Your task to perform on an android device: add a label to a message in the gmail app Image 0: 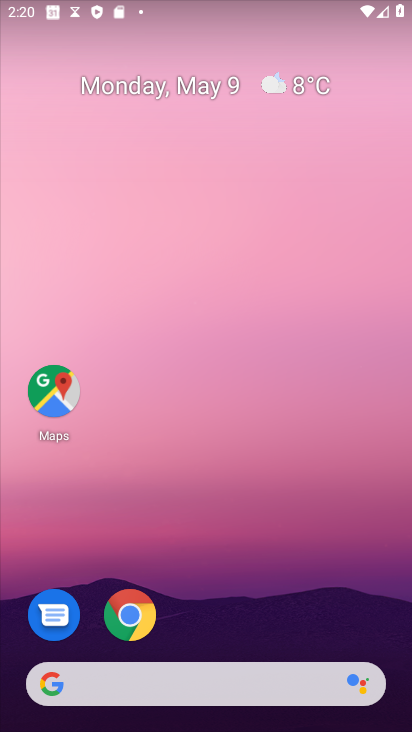
Step 0: drag from (206, 640) to (219, 181)
Your task to perform on an android device: add a label to a message in the gmail app Image 1: 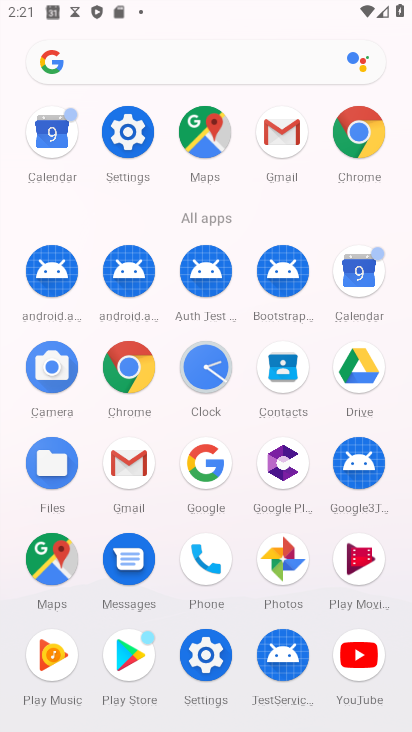
Step 1: click (295, 152)
Your task to perform on an android device: add a label to a message in the gmail app Image 2: 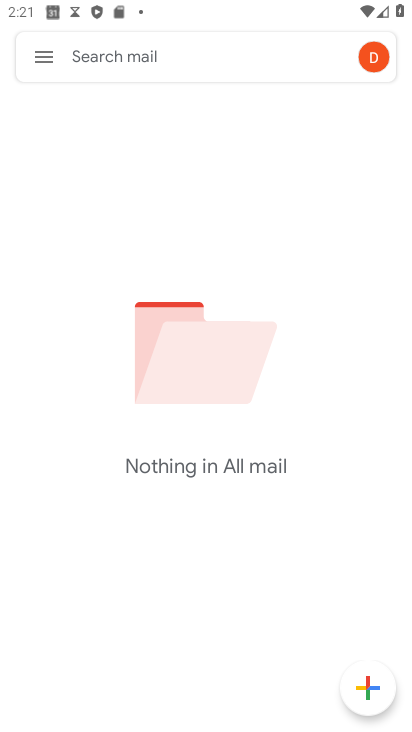
Step 2: task complete